Your task to perform on an android device: Search for vegetarian restaurants on Maps Image 0: 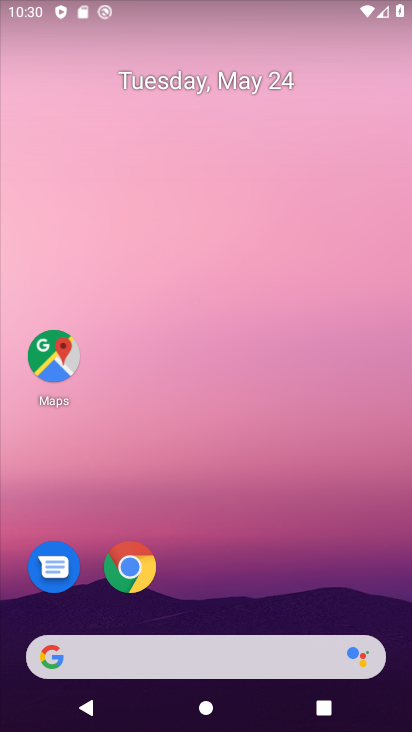
Step 0: drag from (275, 681) to (307, 52)
Your task to perform on an android device: Search for vegetarian restaurants on Maps Image 1: 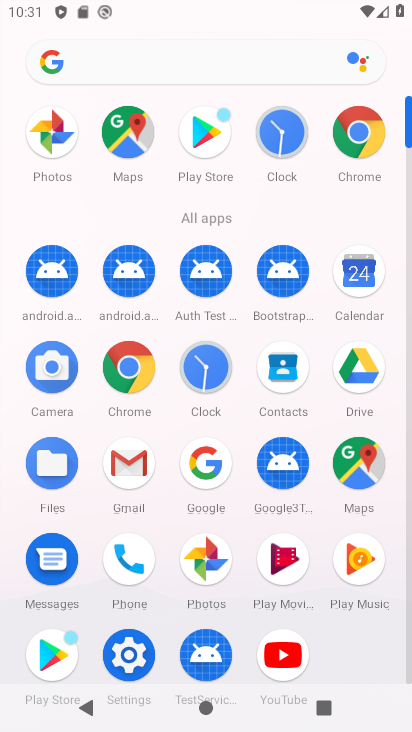
Step 1: click (138, 138)
Your task to perform on an android device: Search for vegetarian restaurants on Maps Image 2: 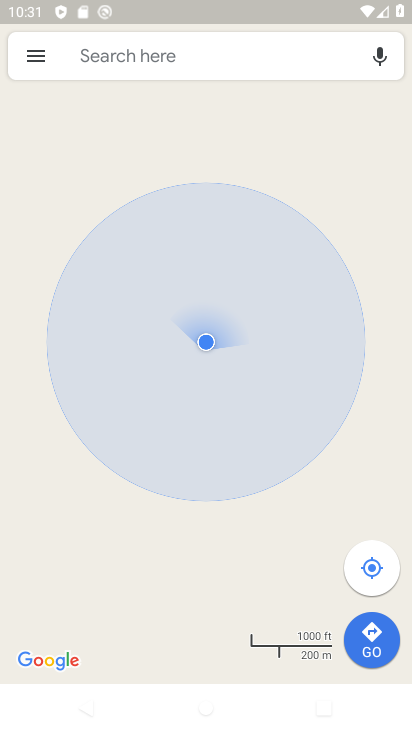
Step 2: click (197, 57)
Your task to perform on an android device: Search for vegetarian restaurants on Maps Image 3: 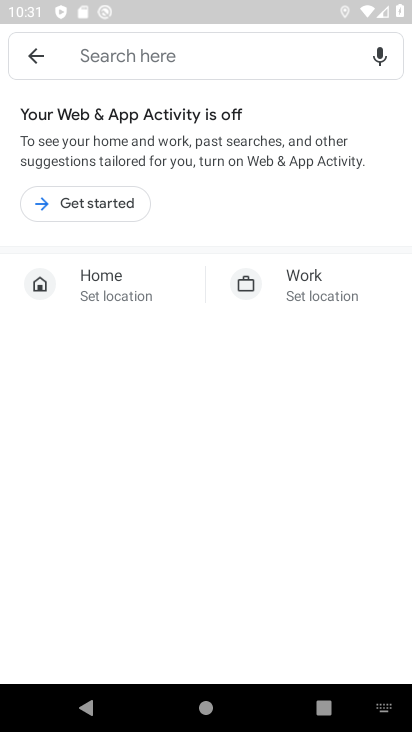
Step 3: click (103, 211)
Your task to perform on an android device: Search for vegetarian restaurants on Maps Image 4: 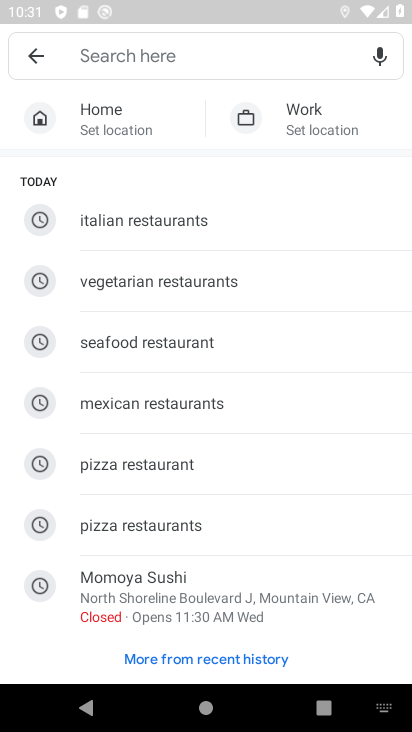
Step 4: click (133, 61)
Your task to perform on an android device: Search for vegetarian restaurants on Maps Image 5: 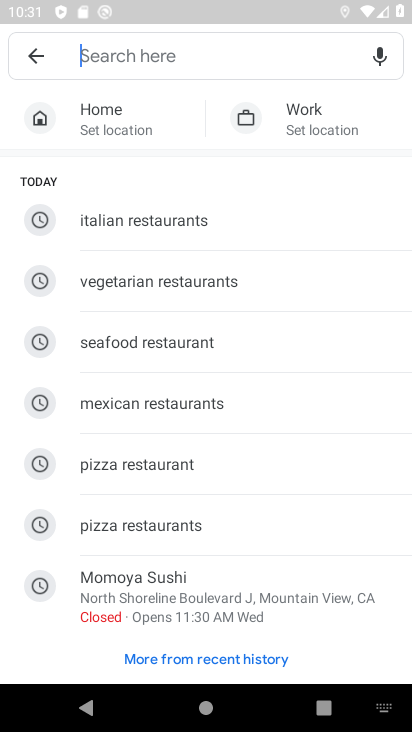
Step 5: click (386, 714)
Your task to perform on an android device: Search for vegetarian restaurants on Maps Image 6: 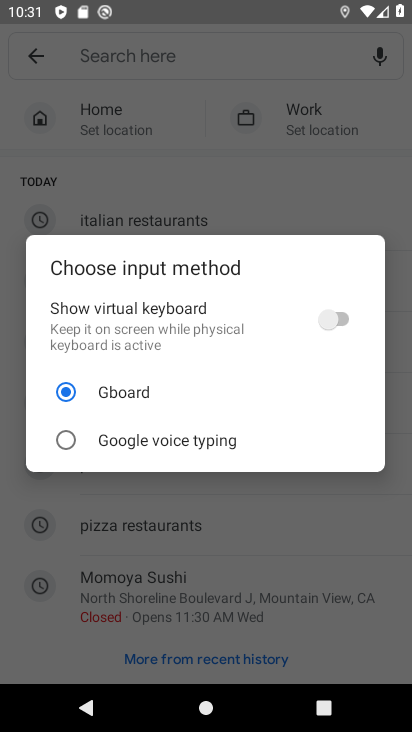
Step 6: click (336, 314)
Your task to perform on an android device: Search for vegetarian restaurants on Maps Image 7: 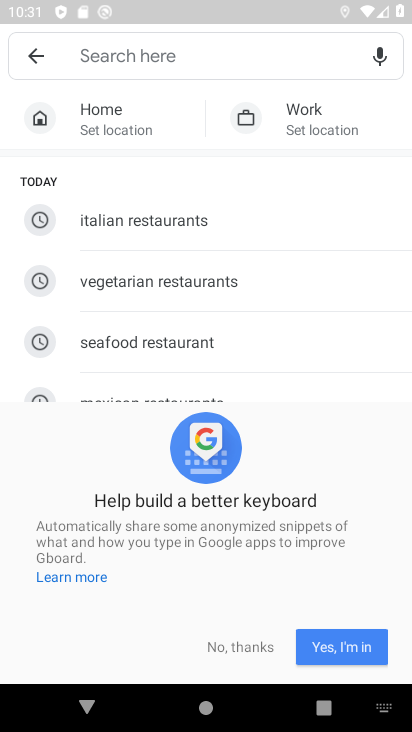
Step 7: click (209, 642)
Your task to perform on an android device: Search for vegetarian restaurants on Maps Image 8: 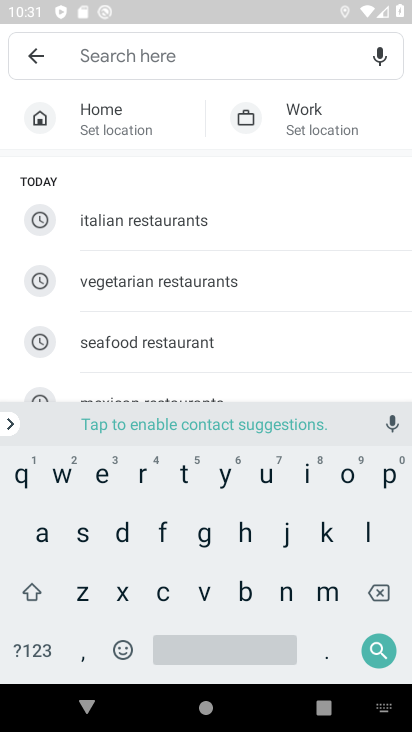
Step 8: click (159, 284)
Your task to perform on an android device: Search for vegetarian restaurants on Maps Image 9: 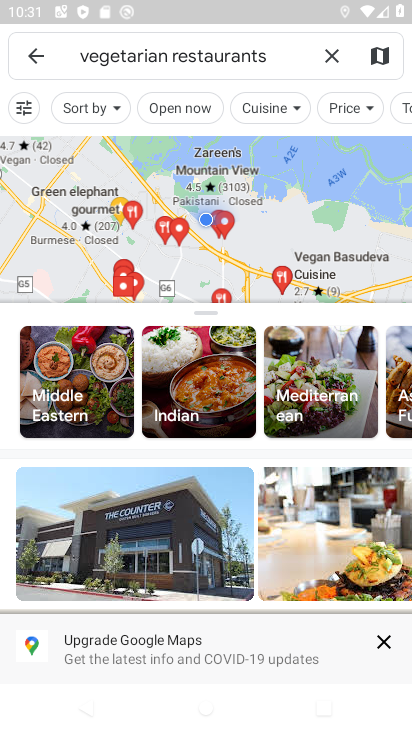
Step 9: click (174, 251)
Your task to perform on an android device: Search for vegetarian restaurants on Maps Image 10: 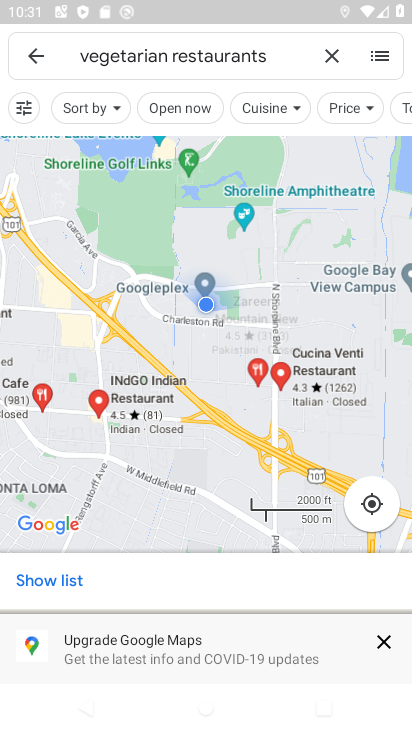
Step 10: task complete